Your task to perform on an android device: refresh tabs in the chrome app Image 0: 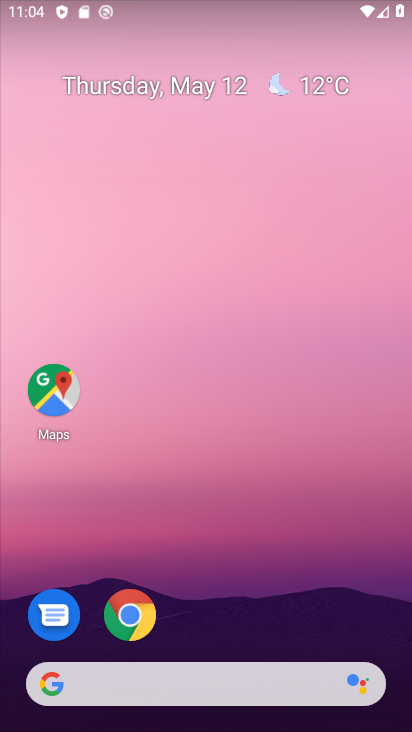
Step 0: click (135, 599)
Your task to perform on an android device: refresh tabs in the chrome app Image 1: 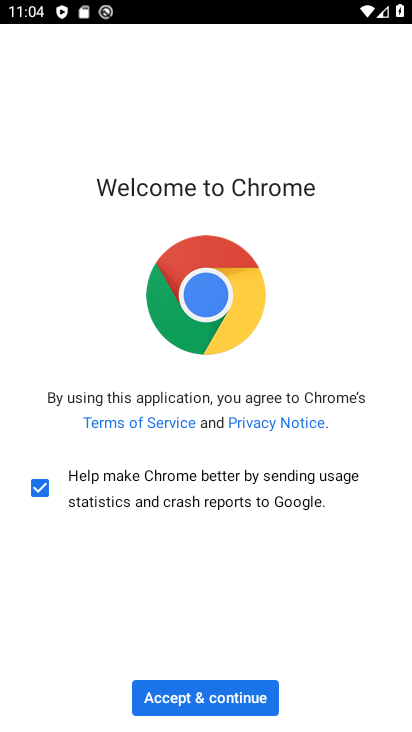
Step 1: click (172, 695)
Your task to perform on an android device: refresh tabs in the chrome app Image 2: 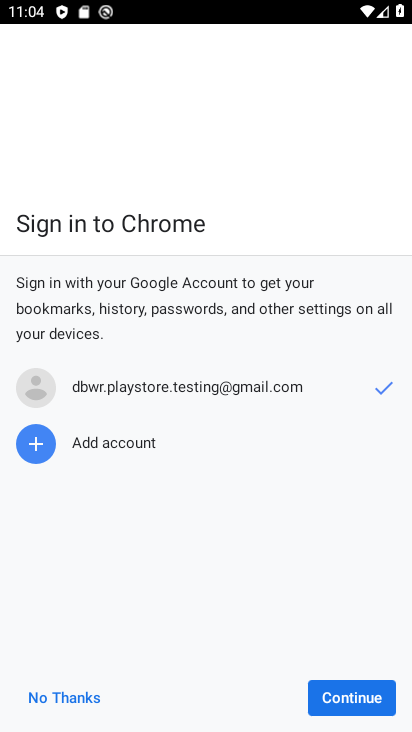
Step 2: click (325, 684)
Your task to perform on an android device: refresh tabs in the chrome app Image 3: 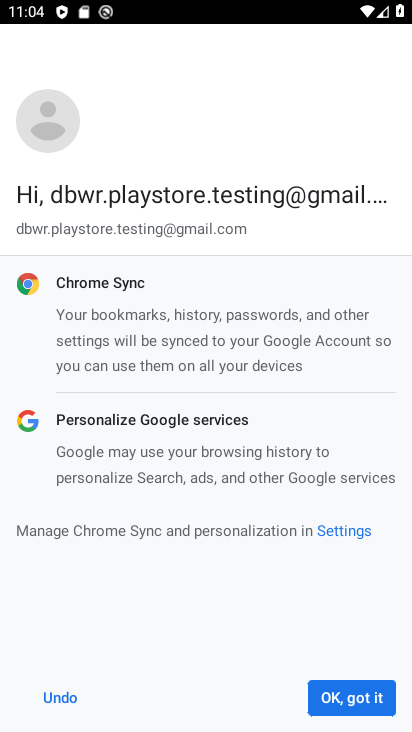
Step 3: click (330, 686)
Your task to perform on an android device: refresh tabs in the chrome app Image 4: 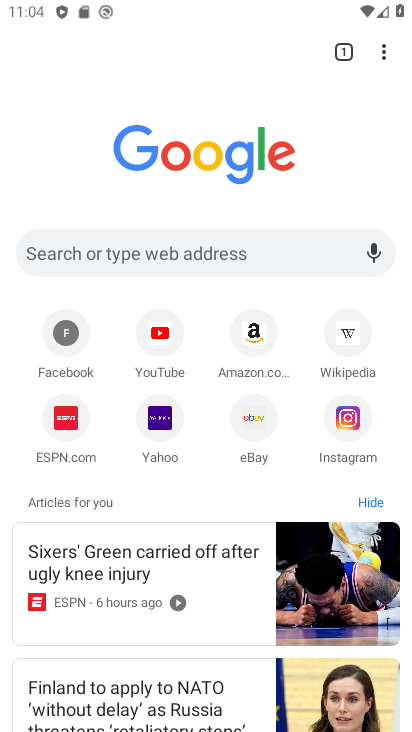
Step 4: click (377, 46)
Your task to perform on an android device: refresh tabs in the chrome app Image 5: 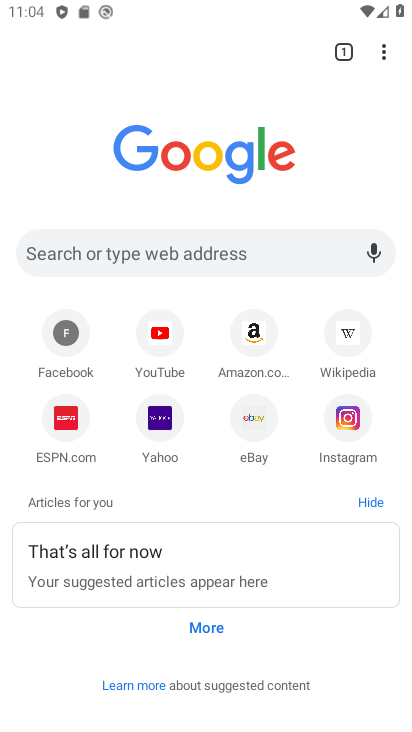
Step 5: task complete